Your task to perform on an android device: Open settings Image 0: 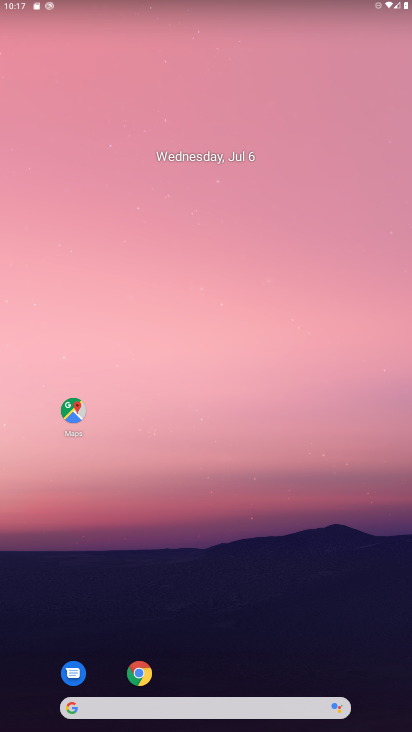
Step 0: drag from (202, 9) to (205, 692)
Your task to perform on an android device: Open settings Image 1: 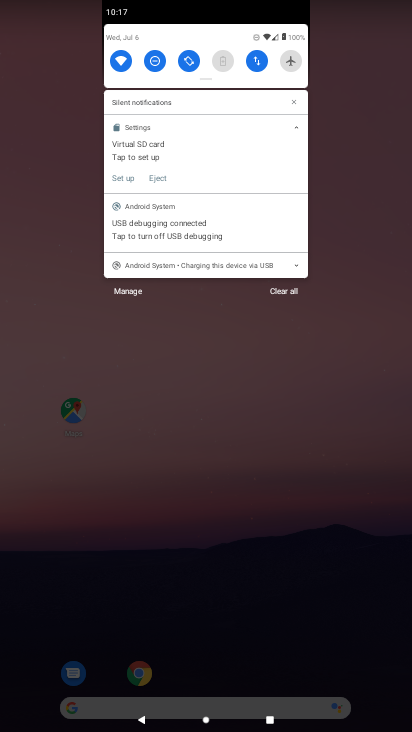
Step 1: drag from (210, 41) to (256, 607)
Your task to perform on an android device: Open settings Image 2: 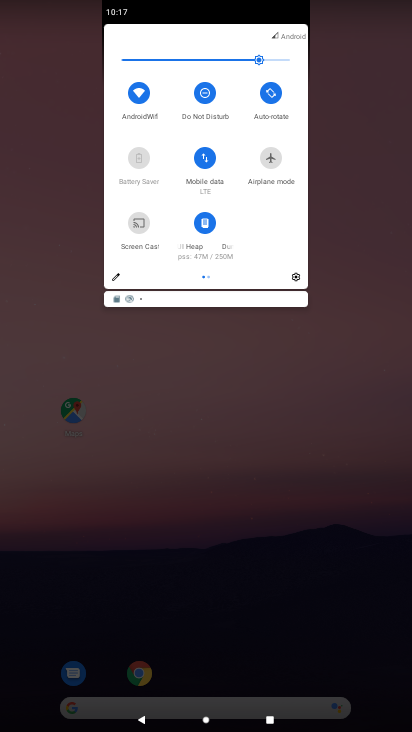
Step 2: click (297, 276)
Your task to perform on an android device: Open settings Image 3: 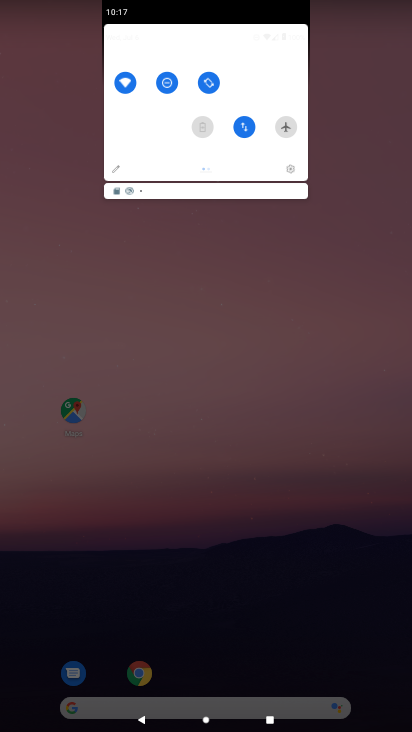
Step 3: task complete